Your task to perform on an android device: add a contact in the contacts app Image 0: 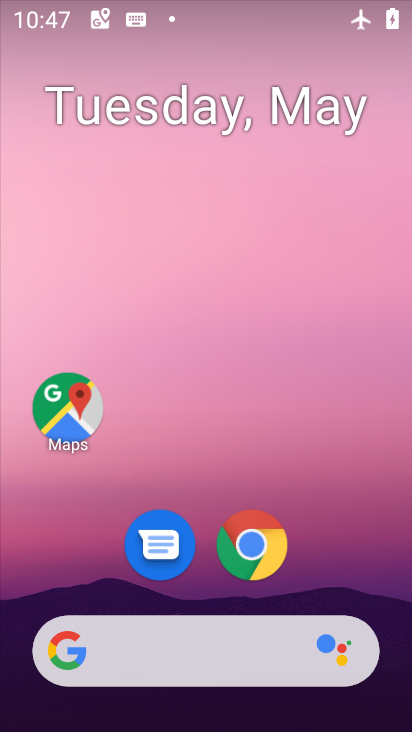
Step 0: drag from (231, 652) to (279, 163)
Your task to perform on an android device: add a contact in the contacts app Image 1: 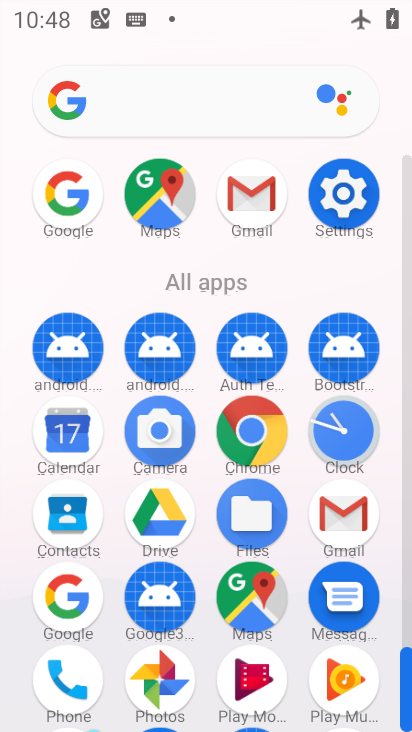
Step 1: click (75, 525)
Your task to perform on an android device: add a contact in the contacts app Image 2: 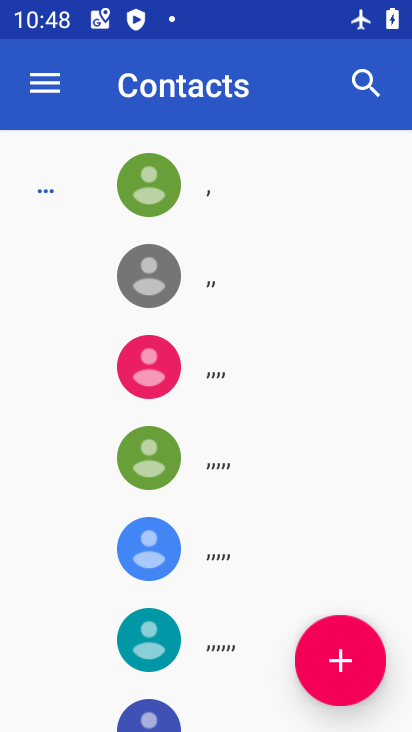
Step 2: click (336, 675)
Your task to perform on an android device: add a contact in the contacts app Image 3: 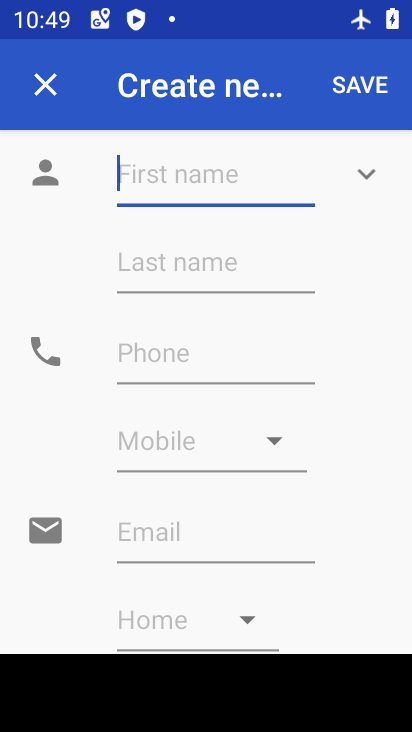
Step 3: type "jhgjibhjkhb"
Your task to perform on an android device: add a contact in the contacts app Image 4: 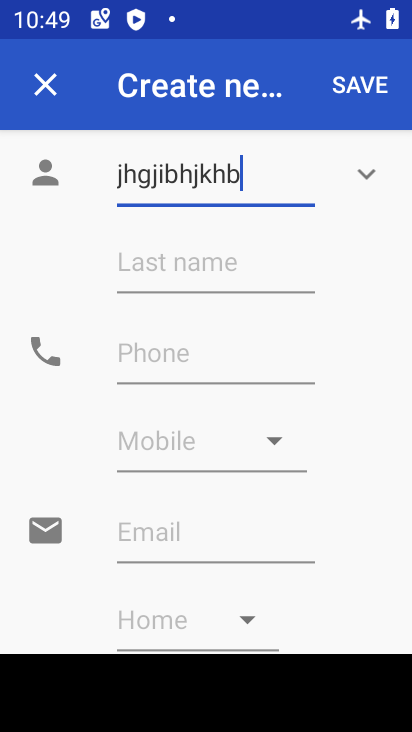
Step 4: click (191, 365)
Your task to perform on an android device: add a contact in the contacts app Image 5: 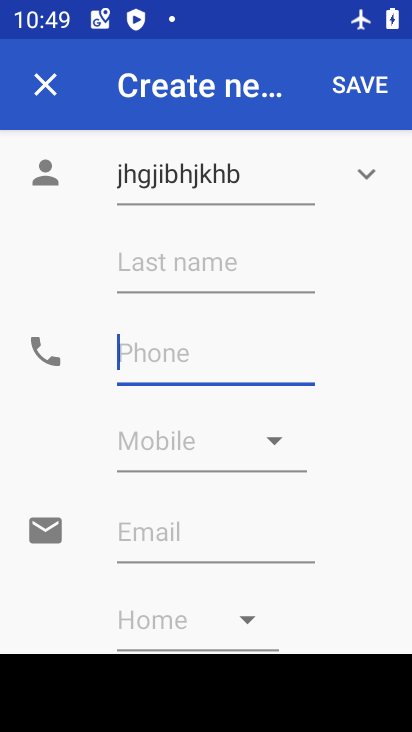
Step 5: type "97876897"
Your task to perform on an android device: add a contact in the contacts app Image 6: 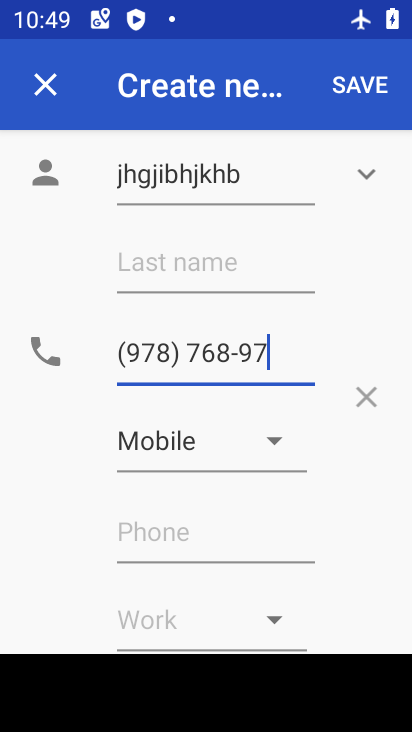
Step 6: click (352, 87)
Your task to perform on an android device: add a contact in the contacts app Image 7: 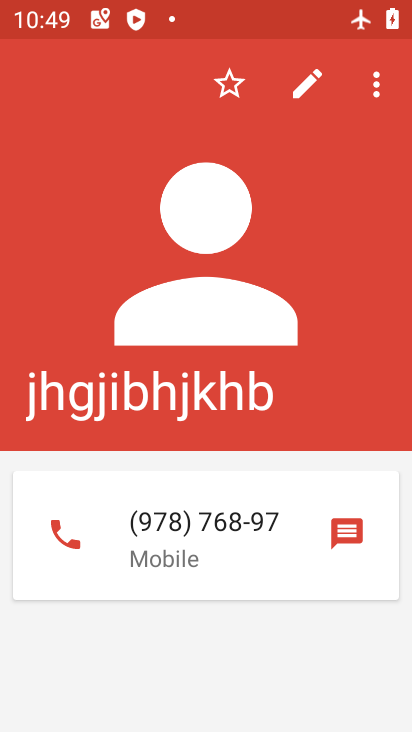
Step 7: task complete